Your task to perform on an android device: star an email in the gmail app Image 0: 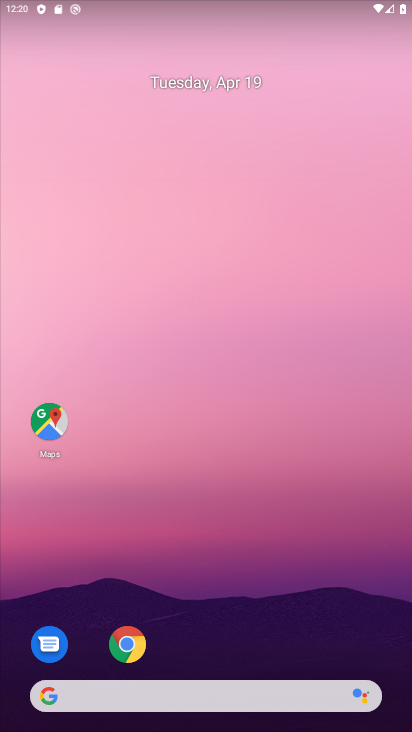
Step 0: drag from (260, 618) to (255, 298)
Your task to perform on an android device: star an email in the gmail app Image 1: 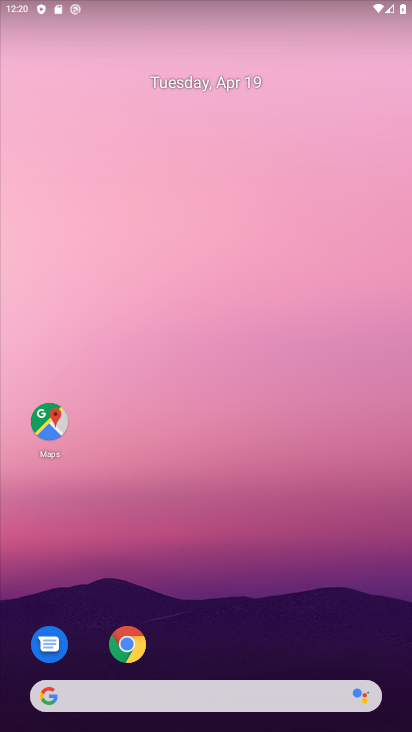
Step 1: drag from (242, 621) to (186, 115)
Your task to perform on an android device: star an email in the gmail app Image 2: 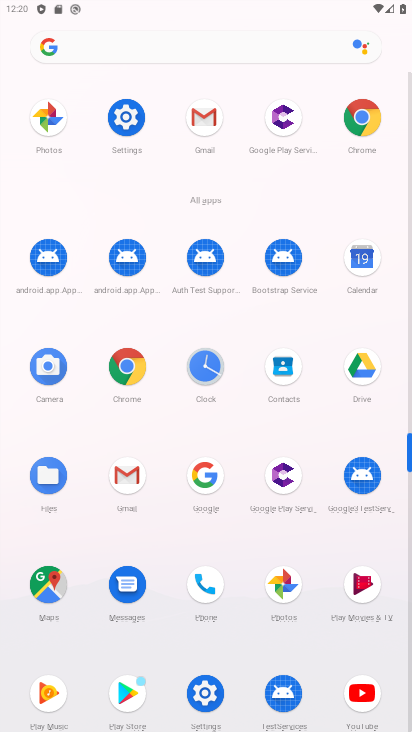
Step 2: click (216, 129)
Your task to perform on an android device: star an email in the gmail app Image 3: 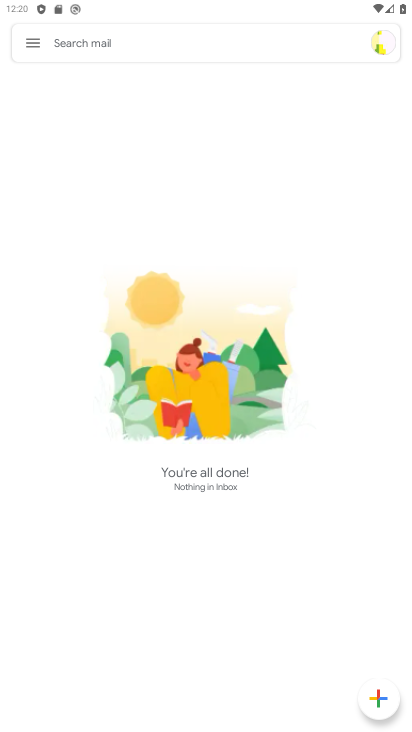
Step 3: click (29, 53)
Your task to perform on an android device: star an email in the gmail app Image 4: 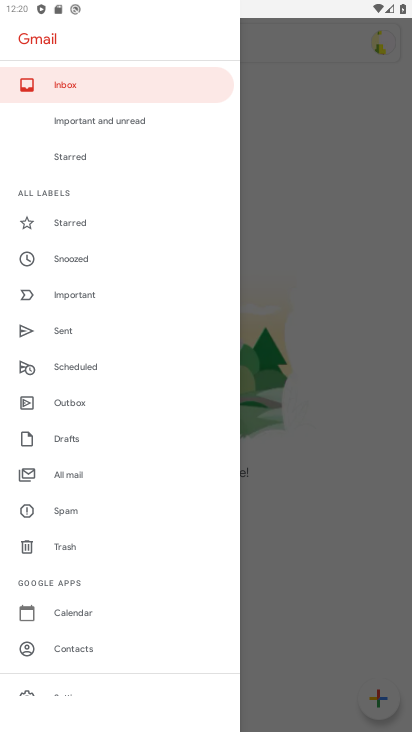
Step 4: click (128, 467)
Your task to perform on an android device: star an email in the gmail app Image 5: 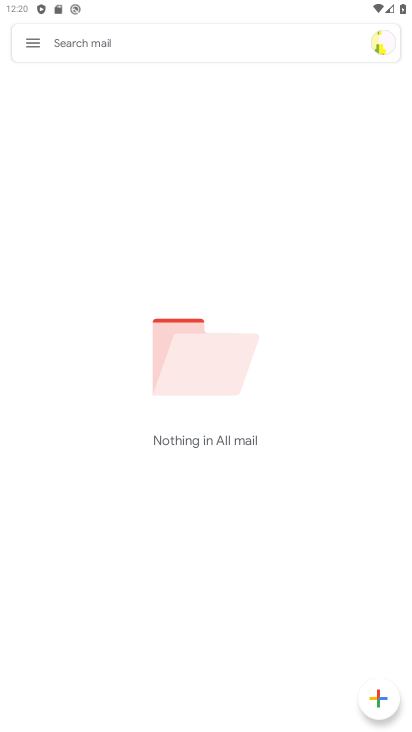
Step 5: task complete